Your task to perform on an android device: Show me popular games on the Play Store Image 0: 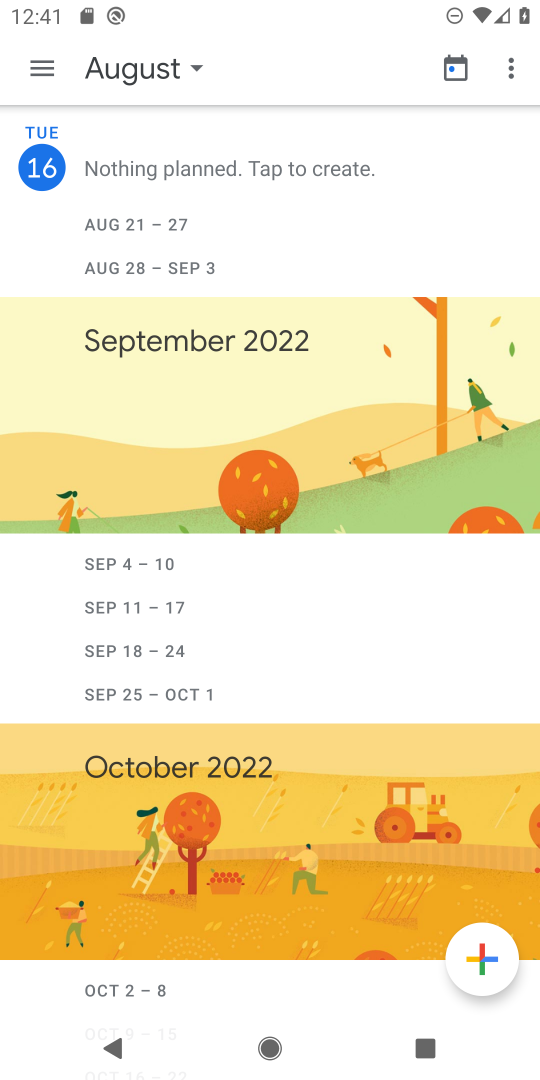
Step 0: press back button
Your task to perform on an android device: Show me popular games on the Play Store Image 1: 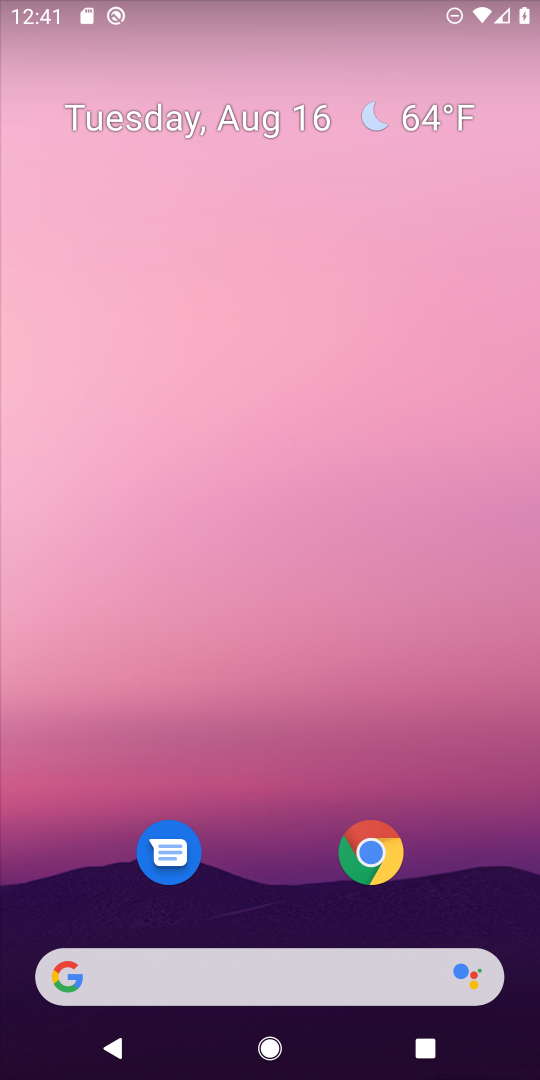
Step 1: drag from (257, 943) to (395, 22)
Your task to perform on an android device: Show me popular games on the Play Store Image 2: 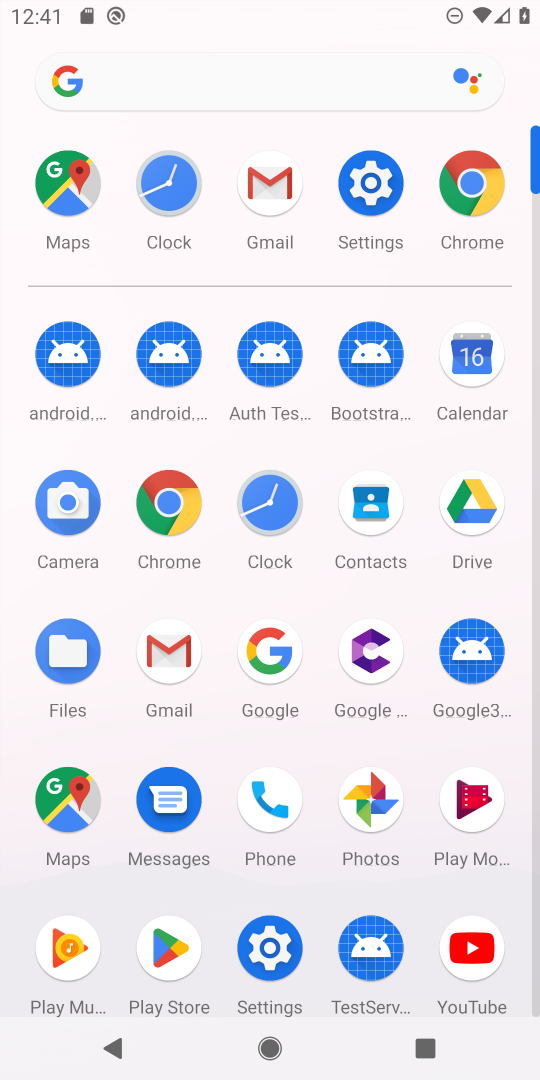
Step 2: click (172, 952)
Your task to perform on an android device: Show me popular games on the Play Store Image 3: 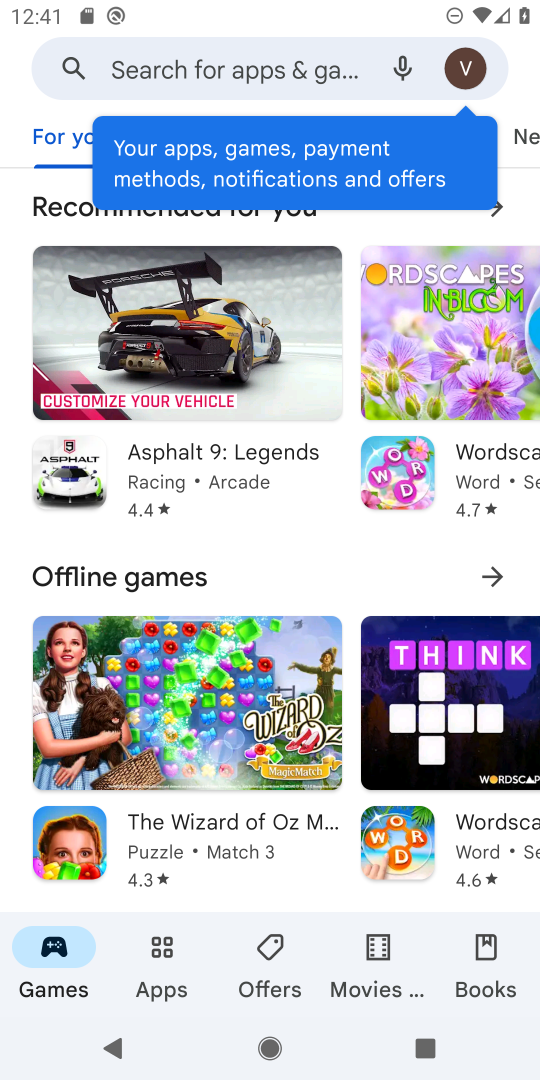
Step 3: task complete